Your task to perform on an android device: change the clock display to show seconds Image 0: 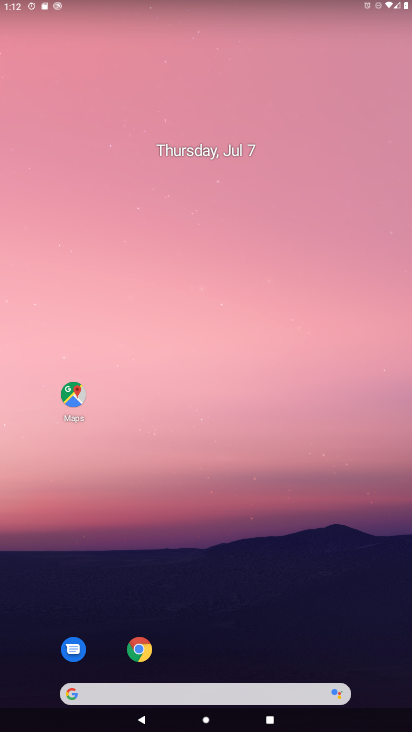
Step 0: drag from (236, 640) to (138, 96)
Your task to perform on an android device: change the clock display to show seconds Image 1: 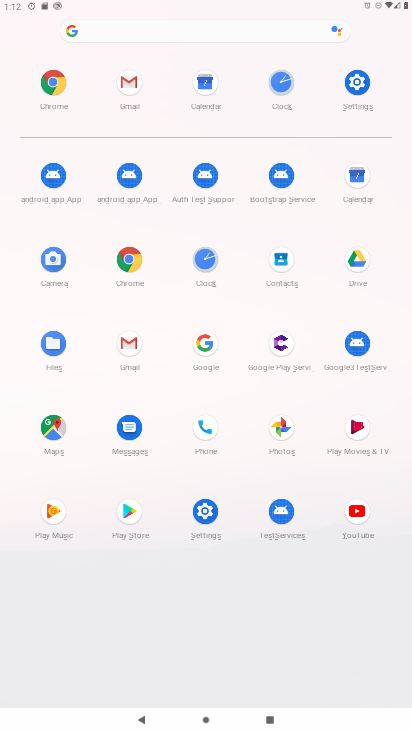
Step 1: click (206, 263)
Your task to perform on an android device: change the clock display to show seconds Image 2: 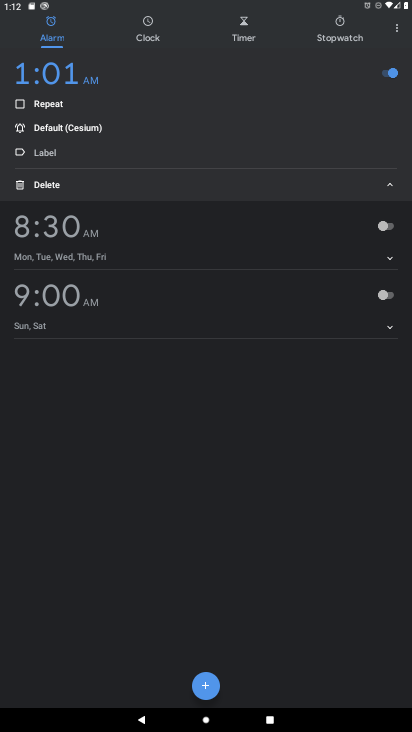
Step 2: click (396, 26)
Your task to perform on an android device: change the clock display to show seconds Image 3: 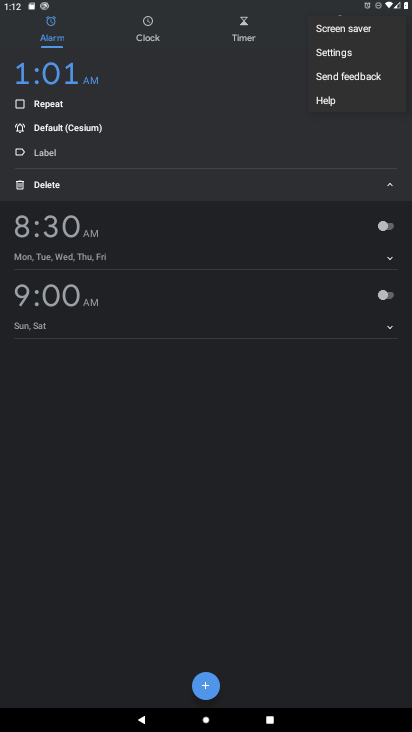
Step 3: click (333, 49)
Your task to perform on an android device: change the clock display to show seconds Image 4: 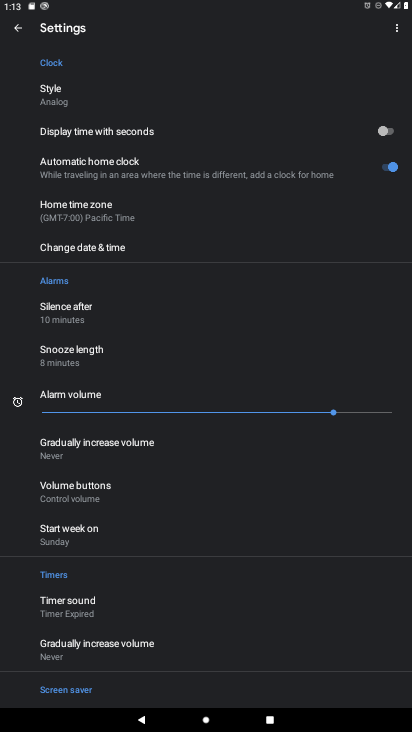
Step 4: click (388, 134)
Your task to perform on an android device: change the clock display to show seconds Image 5: 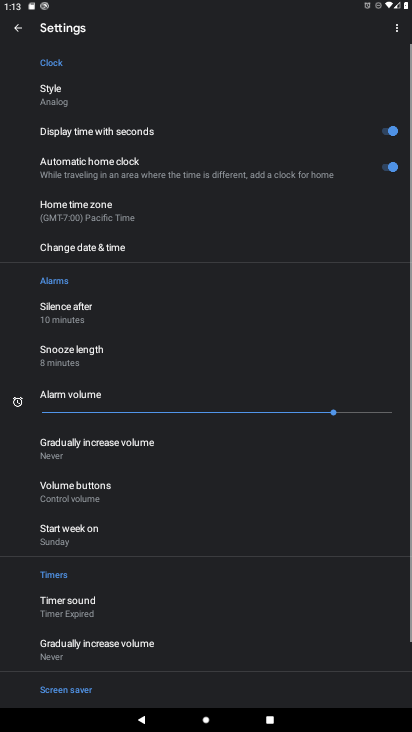
Step 5: task complete